Your task to perform on an android device: Search for "asus zenbook" on walmart.com, select the first entry, and add it to the cart. Image 0: 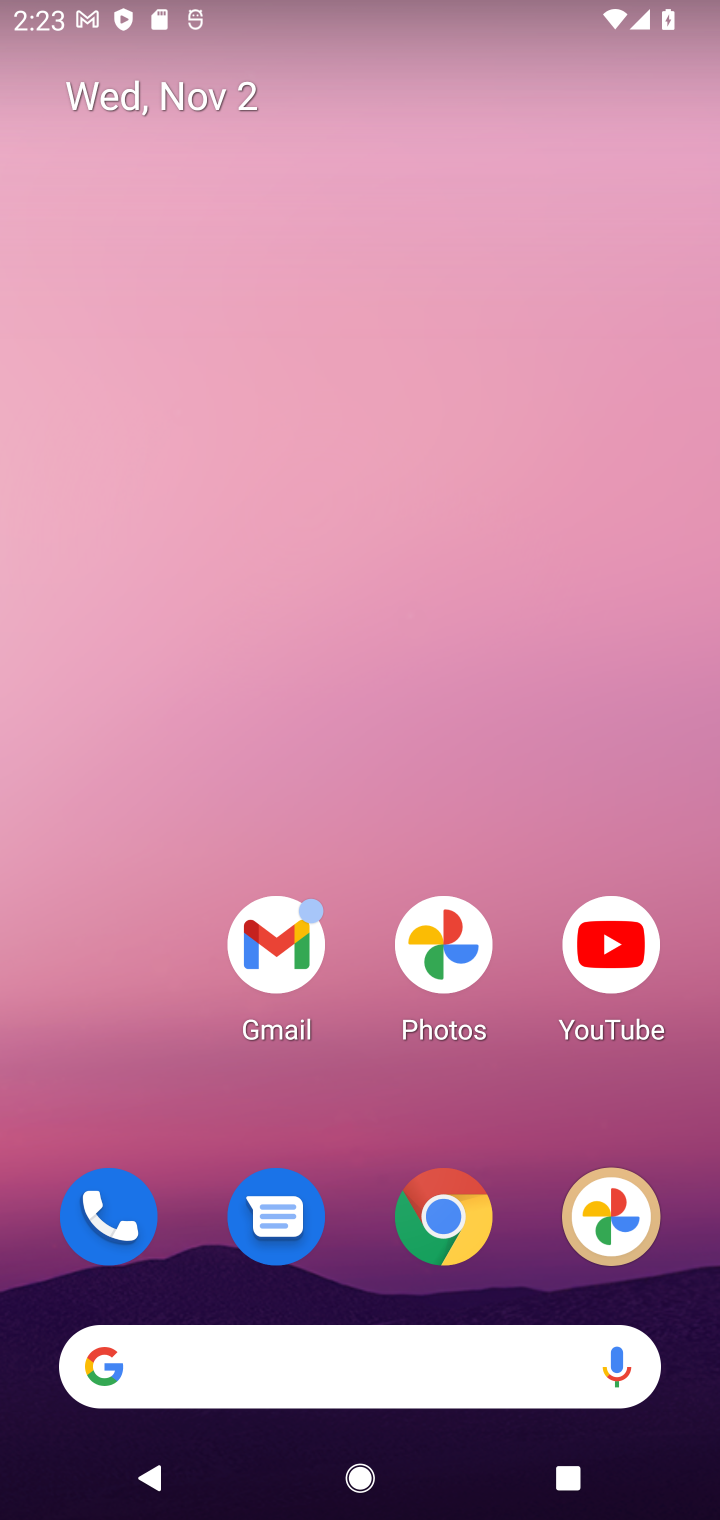
Step 0: click (447, 1196)
Your task to perform on an android device: Search for "asus zenbook" on walmart.com, select the first entry, and add it to the cart. Image 1: 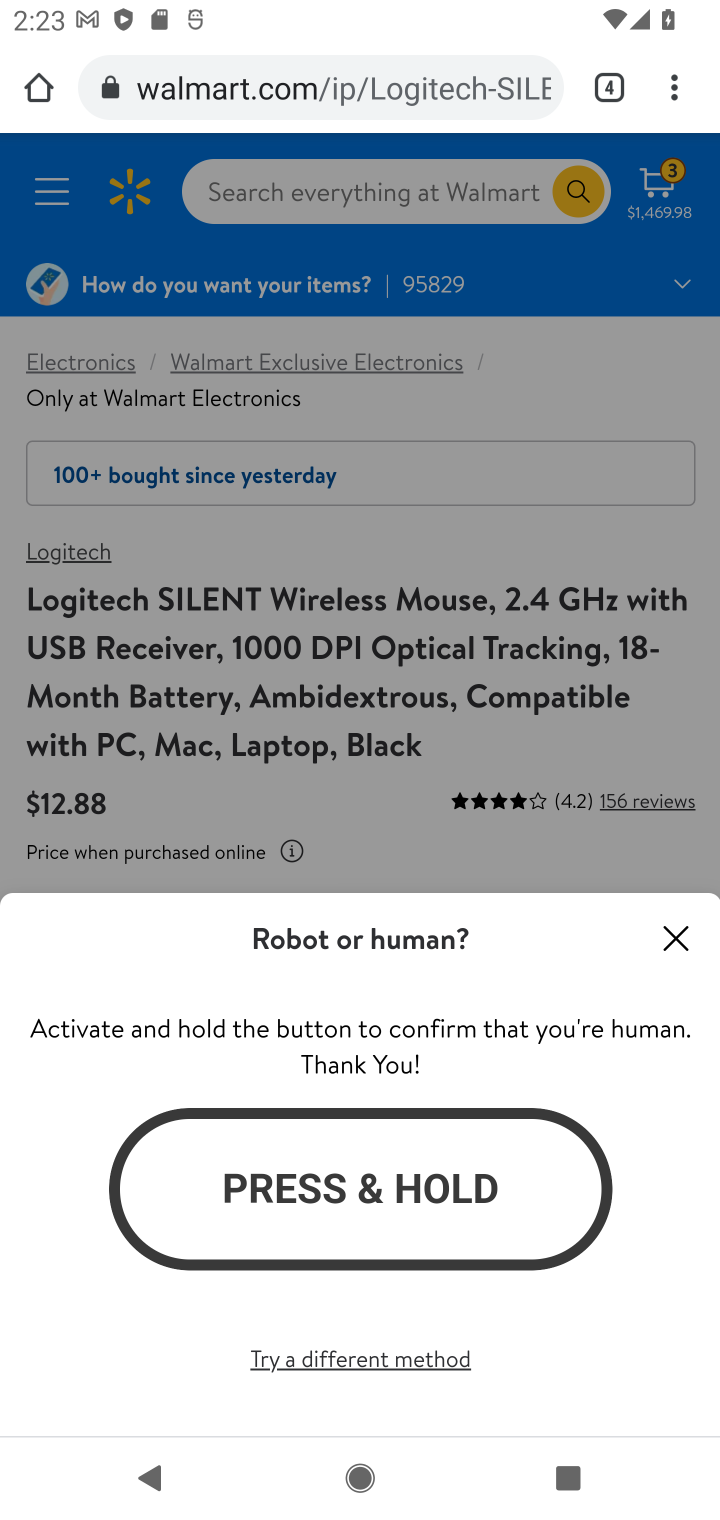
Step 1: click (667, 932)
Your task to perform on an android device: Search for "asus zenbook" on walmart.com, select the first entry, and add it to the cart. Image 2: 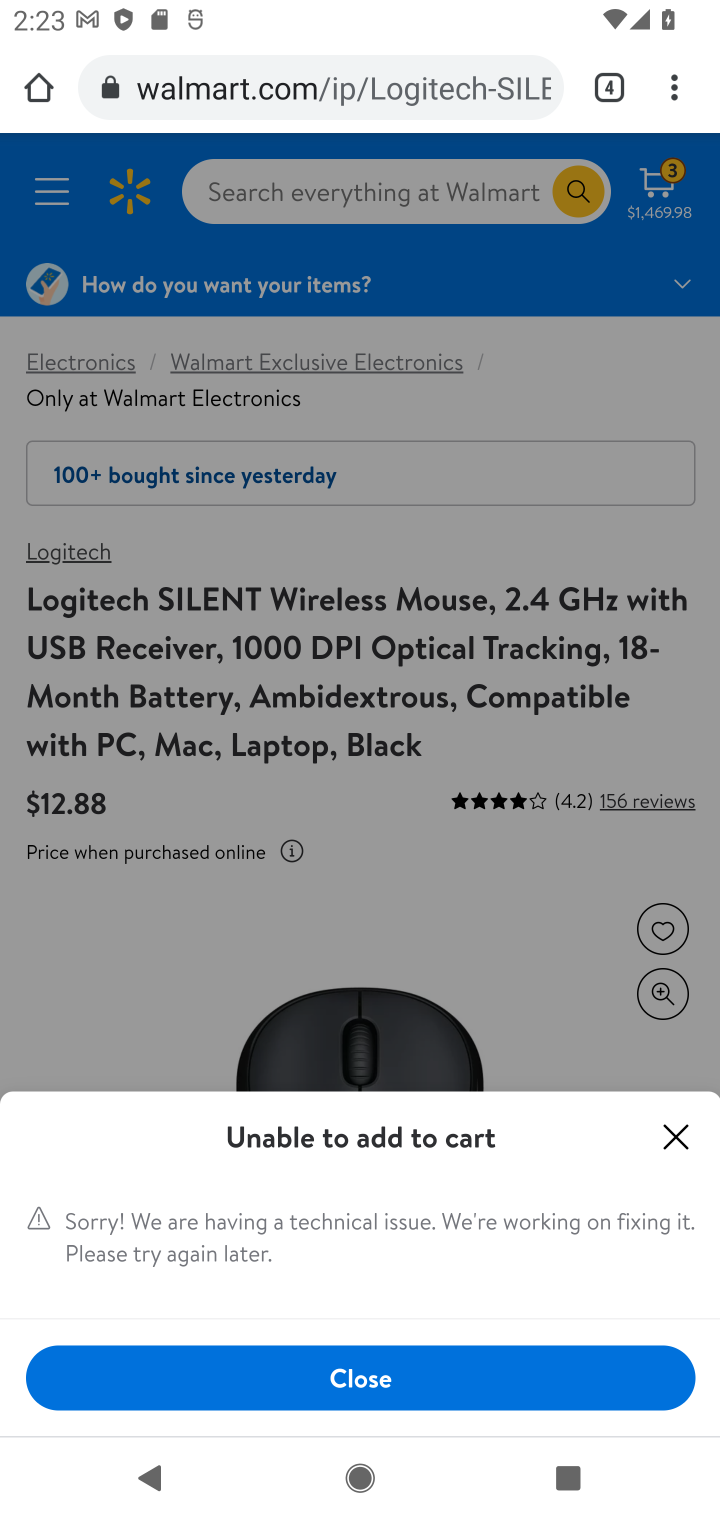
Step 2: click (677, 1147)
Your task to perform on an android device: Search for "asus zenbook" on walmart.com, select the first entry, and add it to the cart. Image 3: 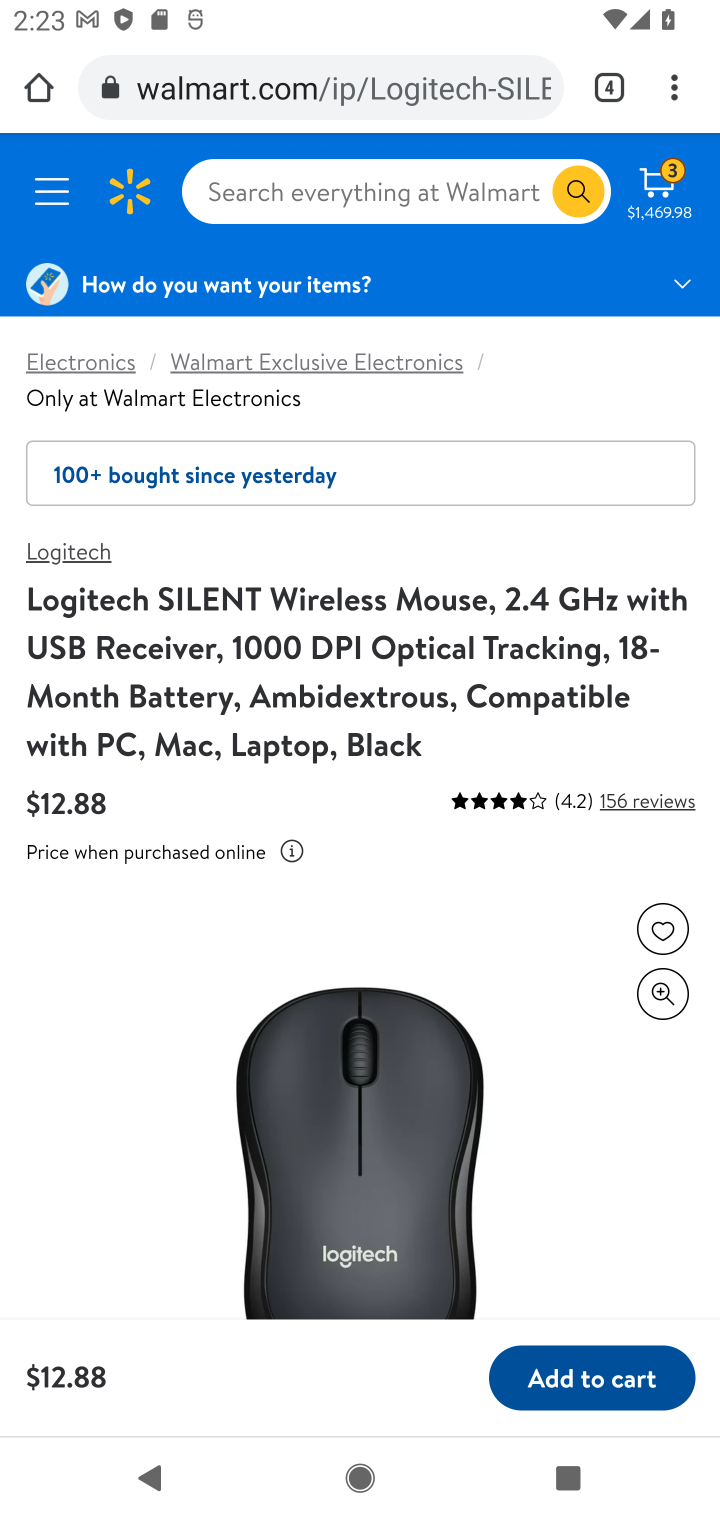
Step 3: click (324, 184)
Your task to perform on an android device: Search for "asus zenbook" on walmart.com, select the first entry, and add it to the cart. Image 4: 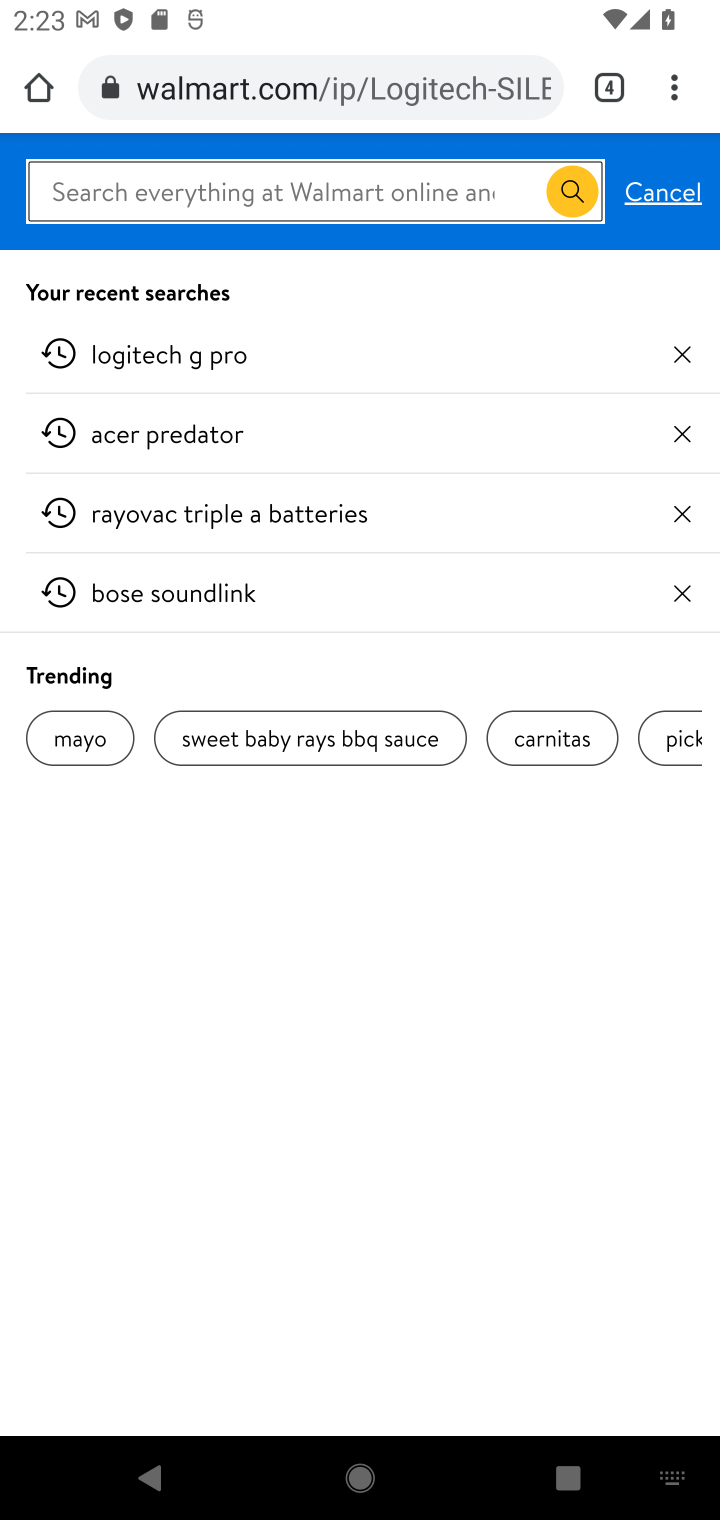
Step 4: type "asus zenbook"
Your task to perform on an android device: Search for "asus zenbook" on walmart.com, select the first entry, and add it to the cart. Image 5: 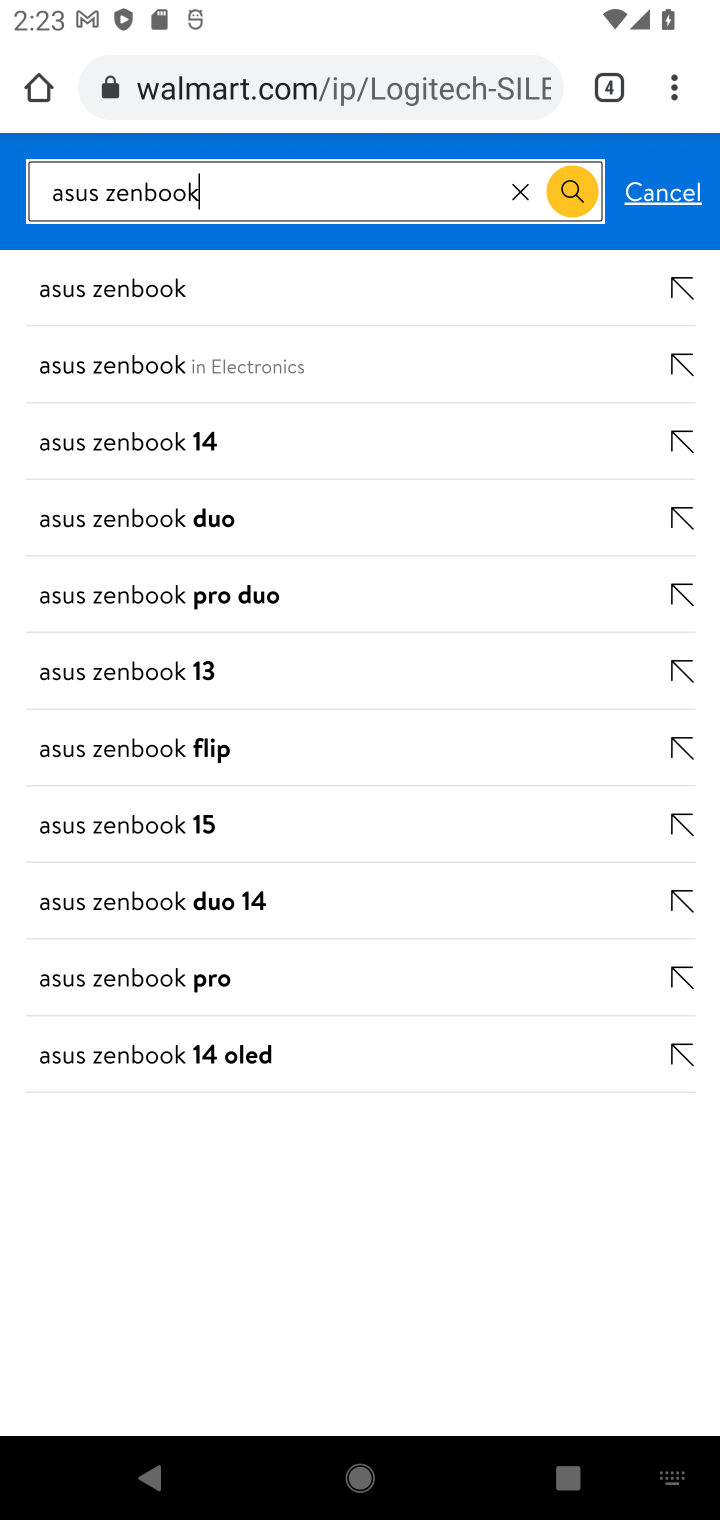
Step 5: click (162, 374)
Your task to perform on an android device: Search for "asus zenbook" on walmart.com, select the first entry, and add it to the cart. Image 6: 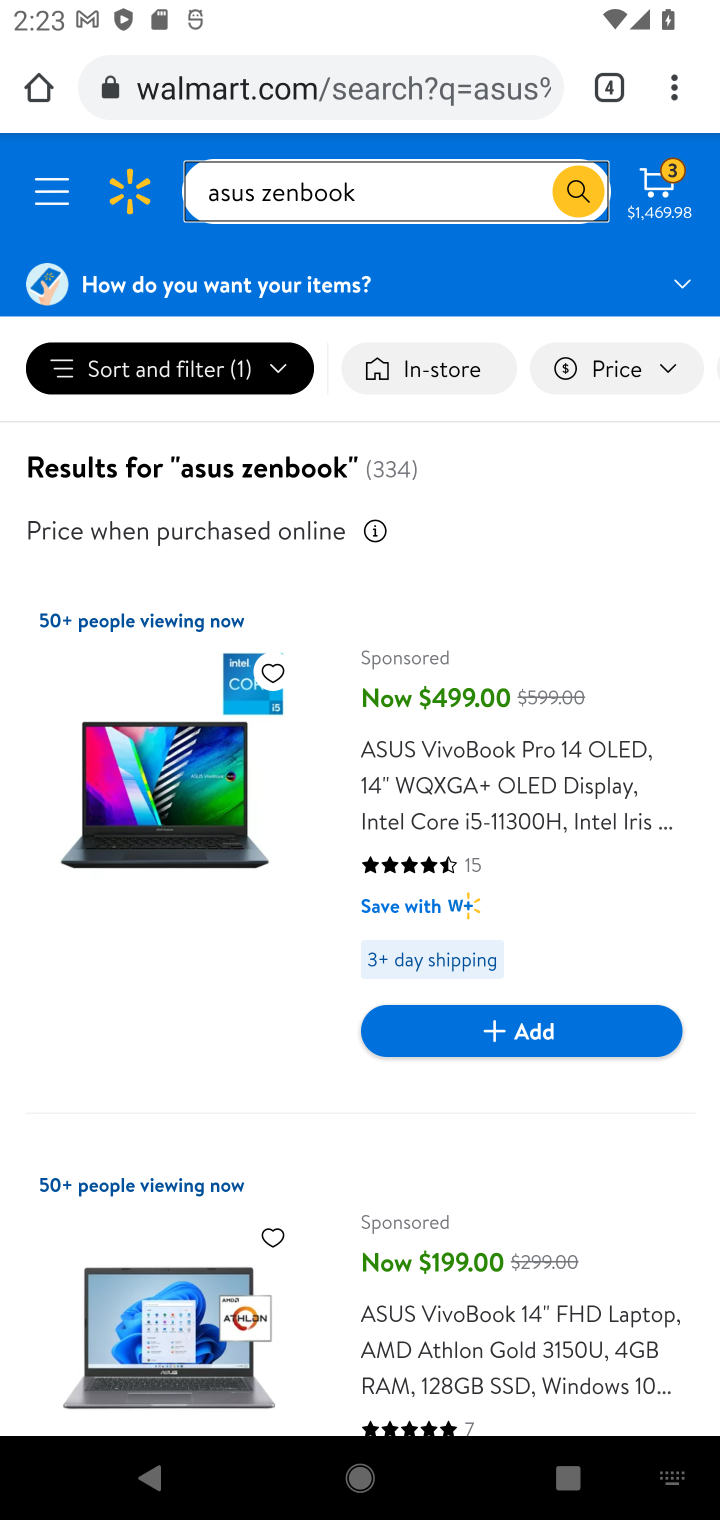
Step 6: click (529, 1033)
Your task to perform on an android device: Search for "asus zenbook" on walmart.com, select the first entry, and add it to the cart. Image 7: 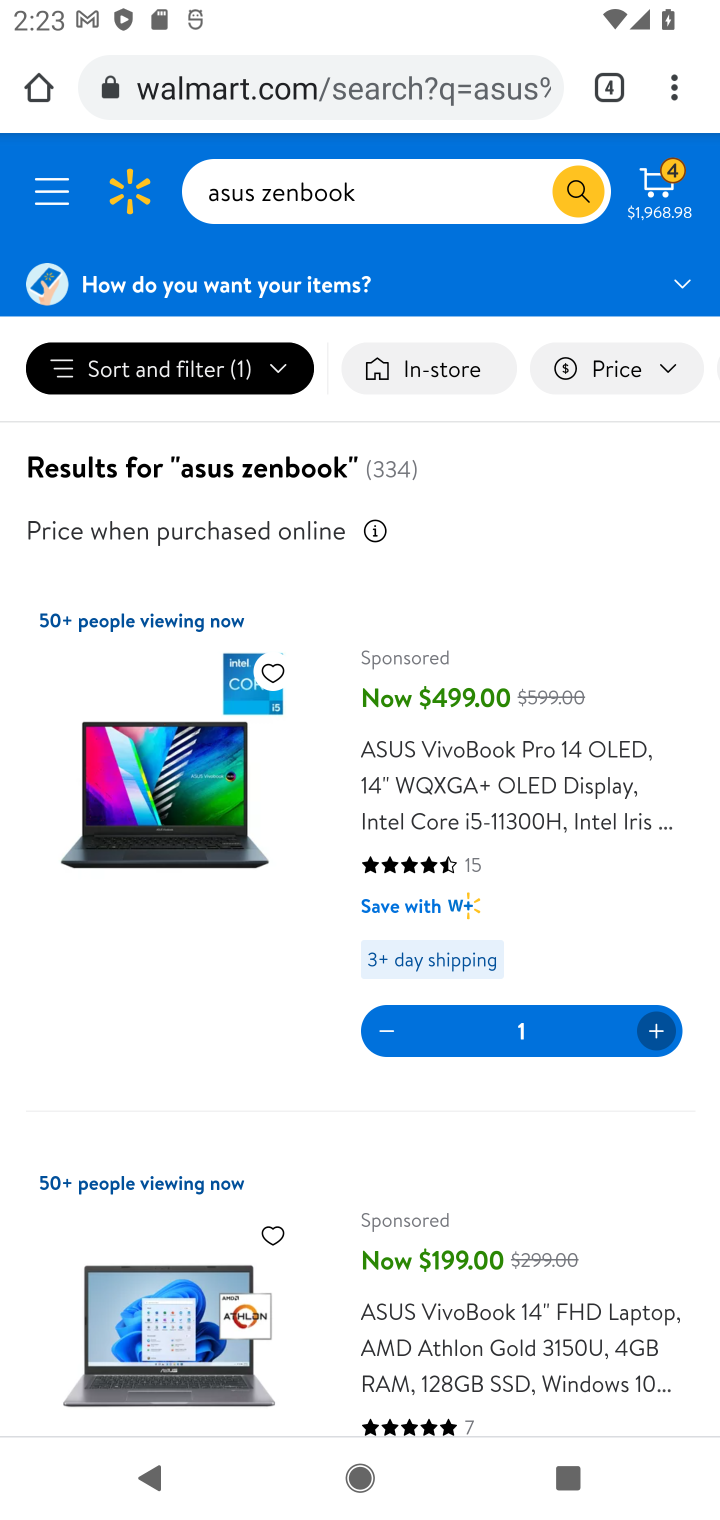
Step 7: task complete